Your task to perform on an android device: change alarm snooze length Image 0: 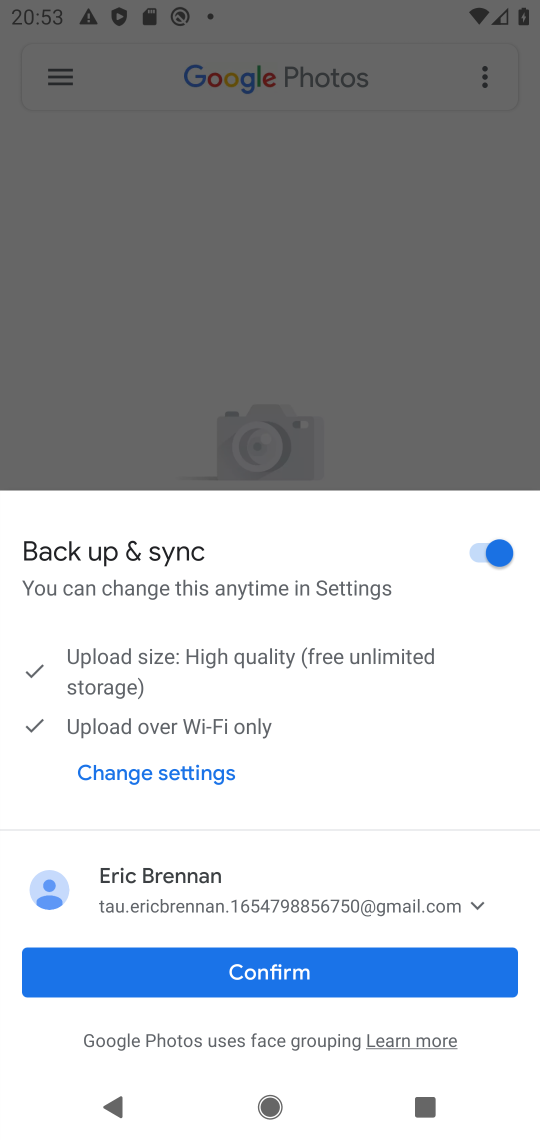
Step 0: press home button
Your task to perform on an android device: change alarm snooze length Image 1: 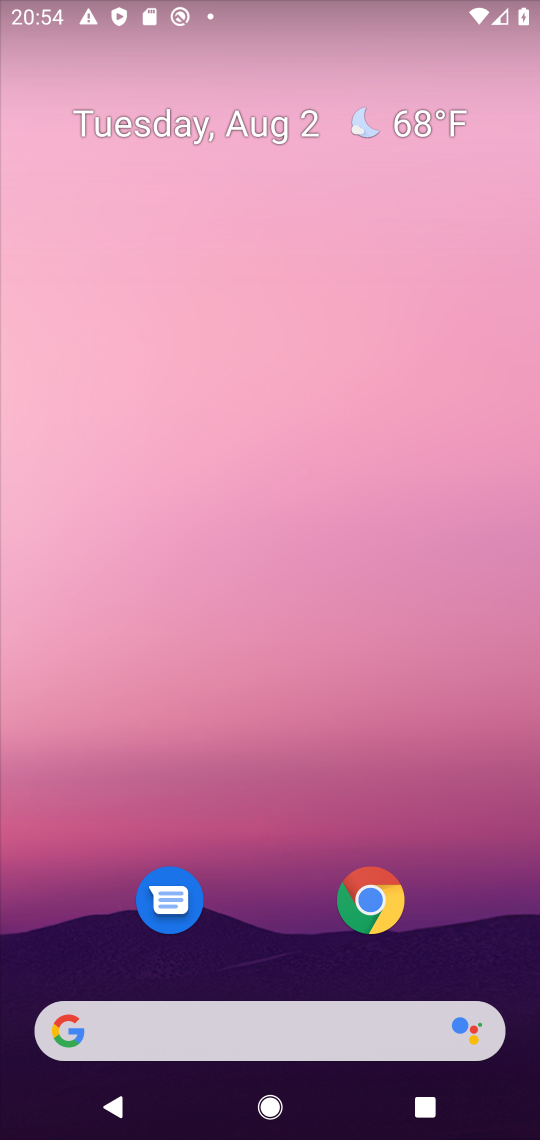
Step 1: drag from (287, 908) to (370, 0)
Your task to perform on an android device: change alarm snooze length Image 2: 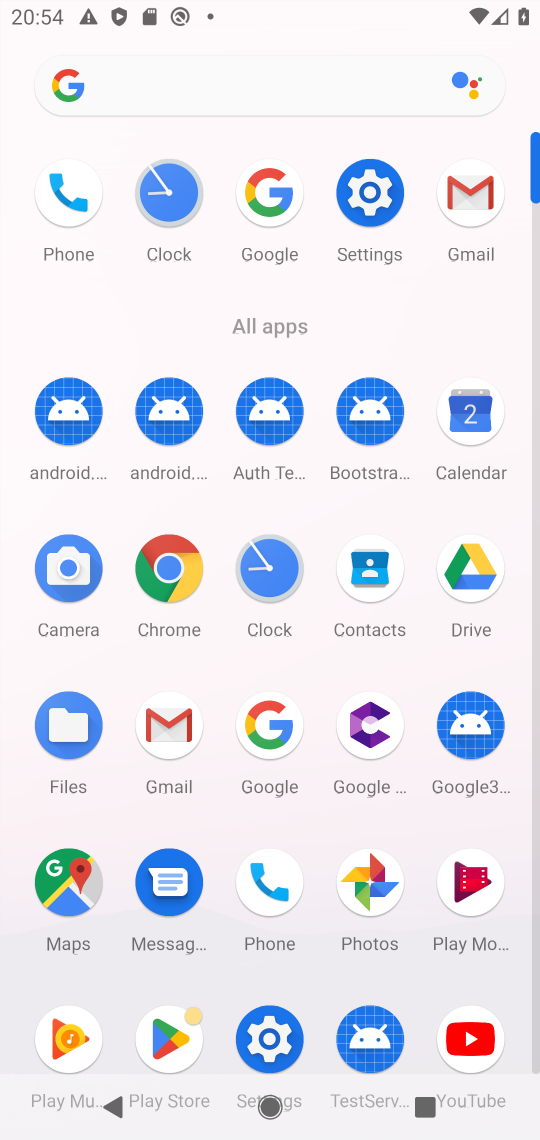
Step 2: click (272, 567)
Your task to perform on an android device: change alarm snooze length Image 3: 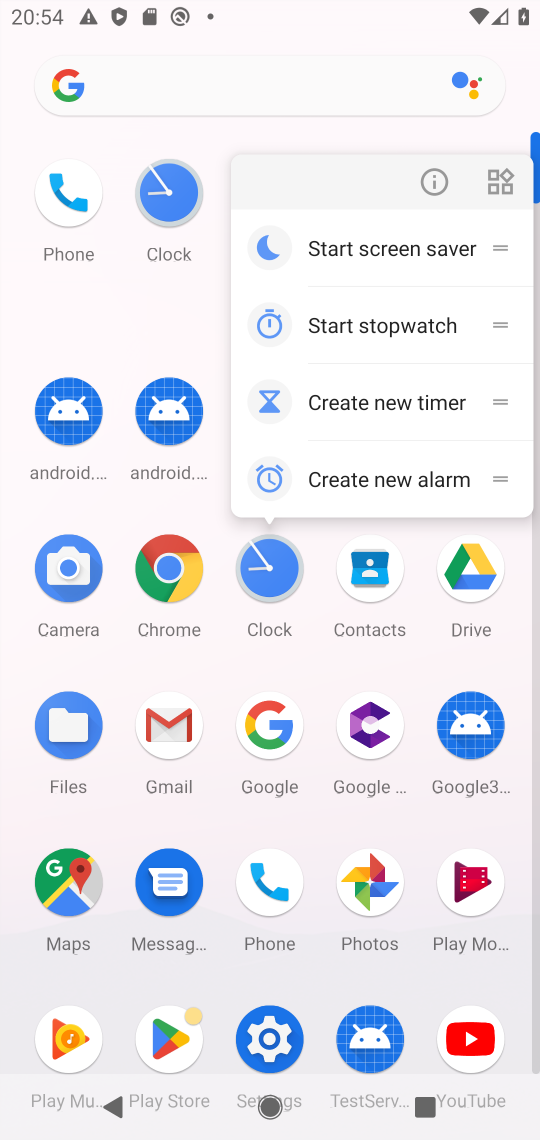
Step 3: click (281, 575)
Your task to perform on an android device: change alarm snooze length Image 4: 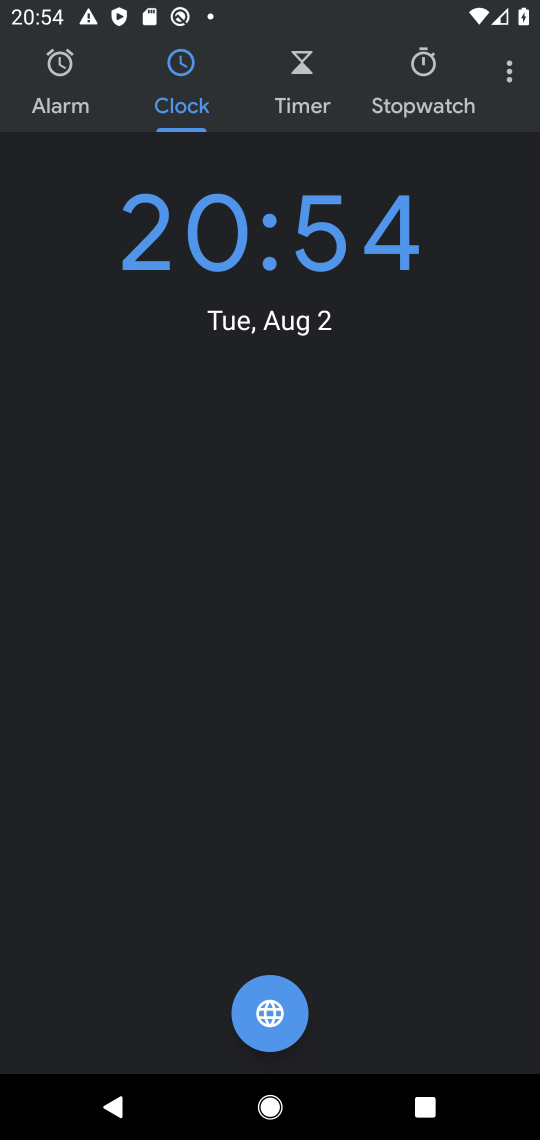
Step 4: click (509, 90)
Your task to perform on an android device: change alarm snooze length Image 5: 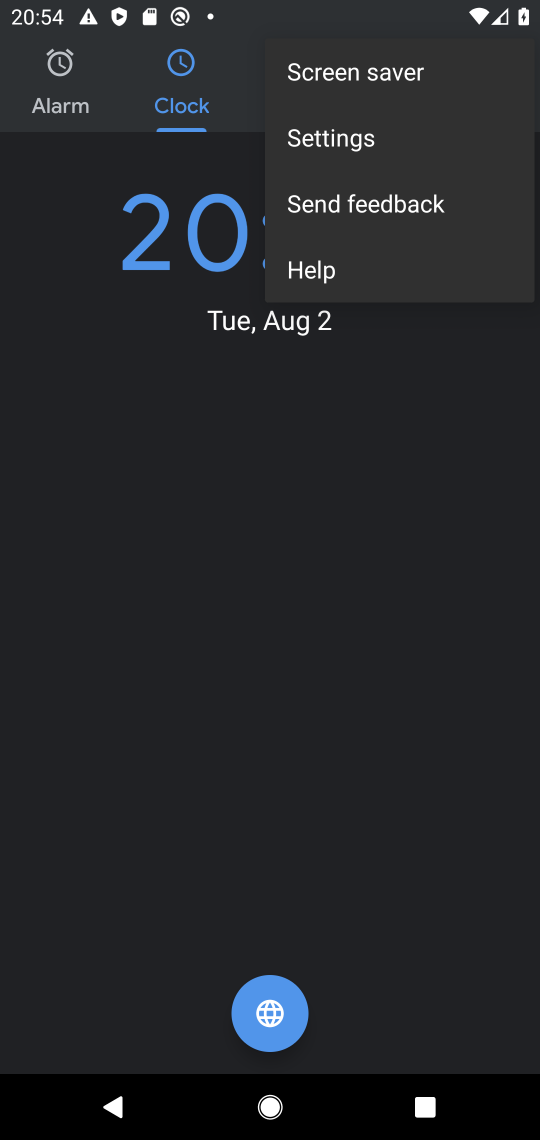
Step 5: click (394, 143)
Your task to perform on an android device: change alarm snooze length Image 6: 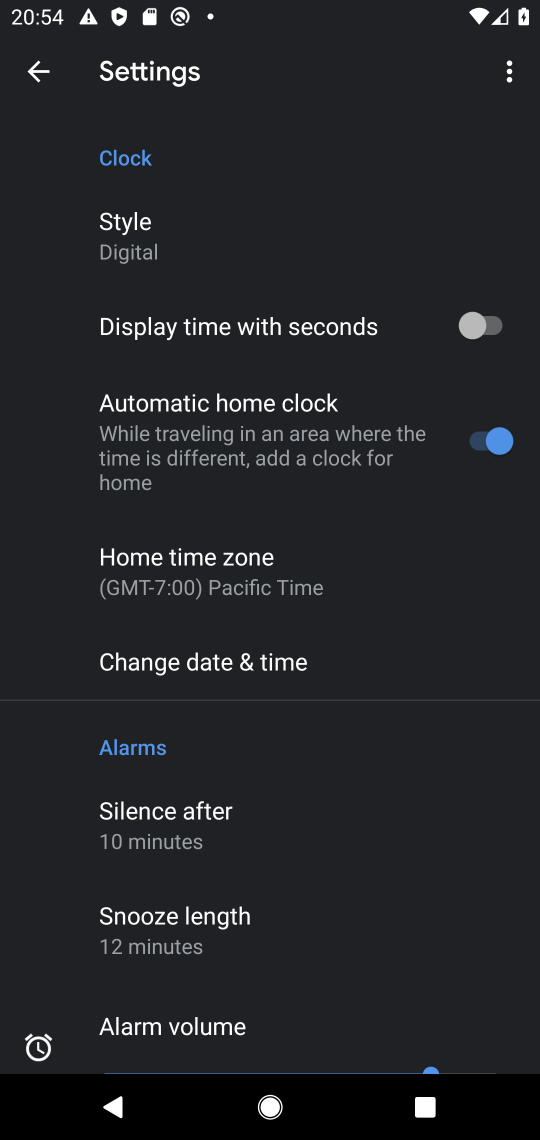
Step 6: click (203, 934)
Your task to perform on an android device: change alarm snooze length Image 7: 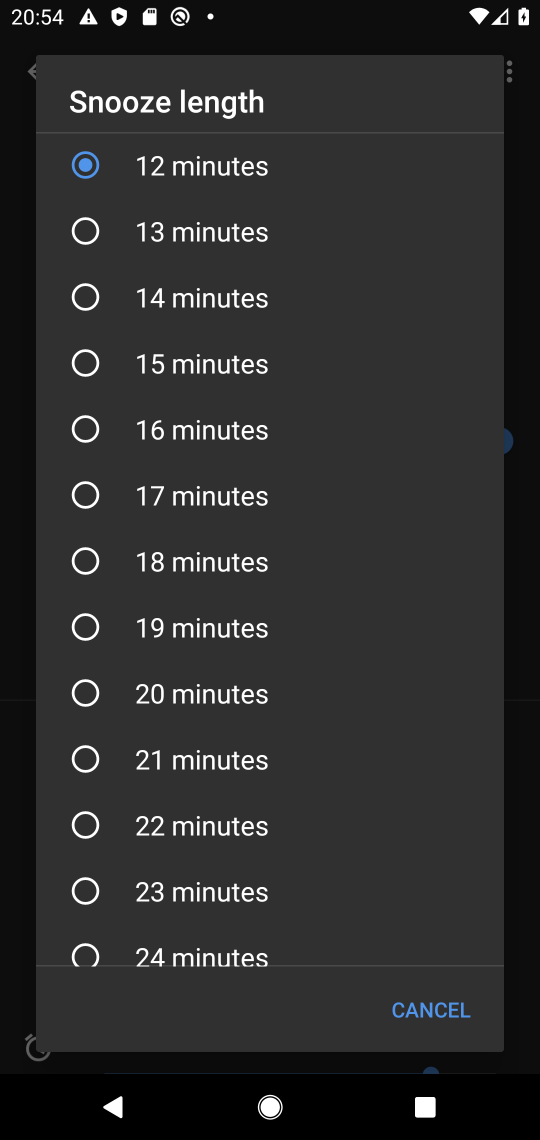
Step 7: click (85, 222)
Your task to perform on an android device: change alarm snooze length Image 8: 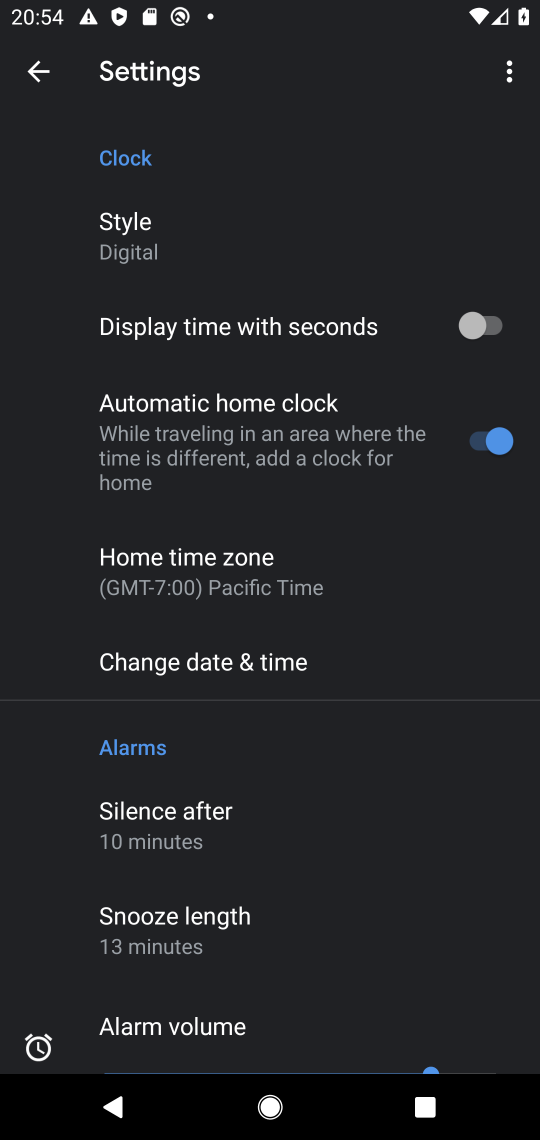
Step 8: task complete